Your task to perform on an android device: Open Wikipedia Image 0: 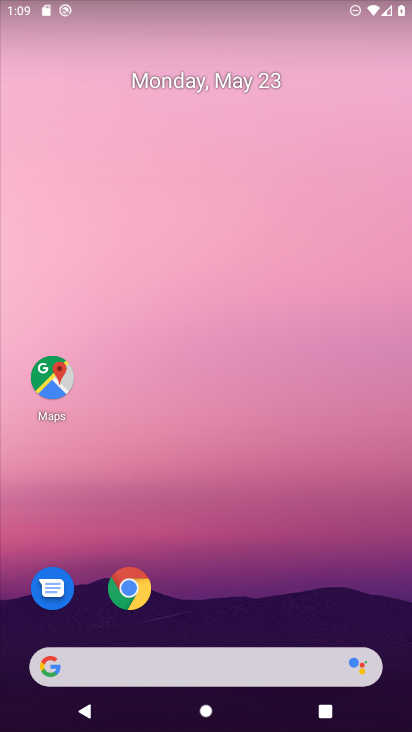
Step 0: click (132, 589)
Your task to perform on an android device: Open Wikipedia Image 1: 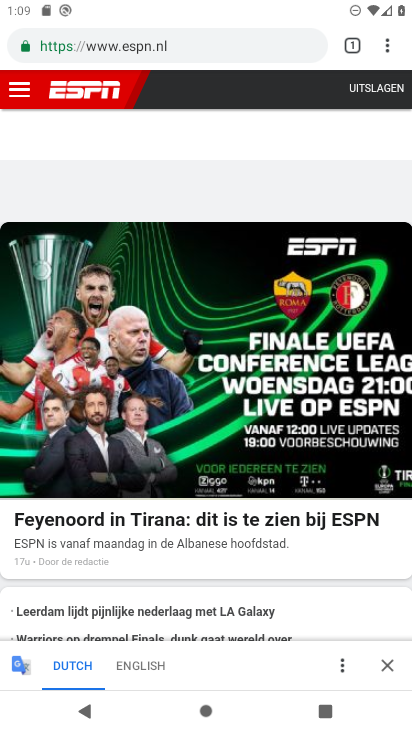
Step 1: click (359, 40)
Your task to perform on an android device: Open Wikipedia Image 2: 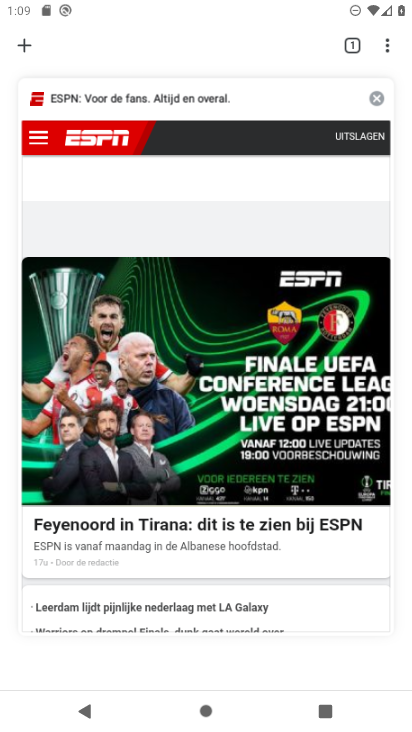
Step 2: click (378, 96)
Your task to perform on an android device: Open Wikipedia Image 3: 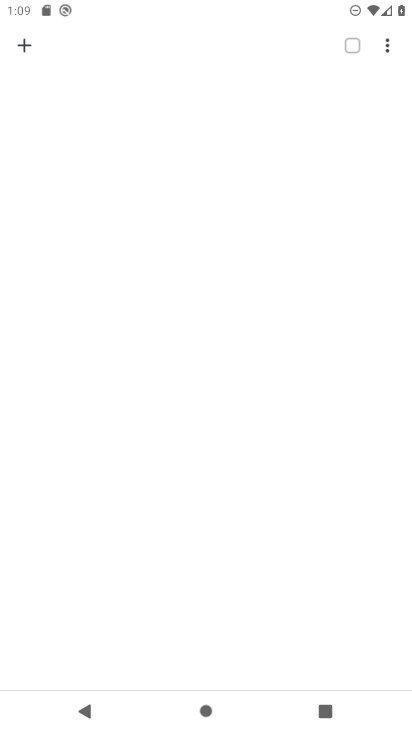
Step 3: click (22, 47)
Your task to perform on an android device: Open Wikipedia Image 4: 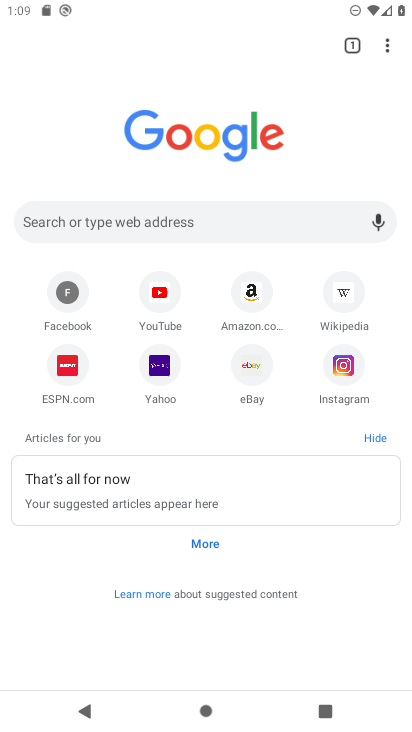
Step 4: click (347, 300)
Your task to perform on an android device: Open Wikipedia Image 5: 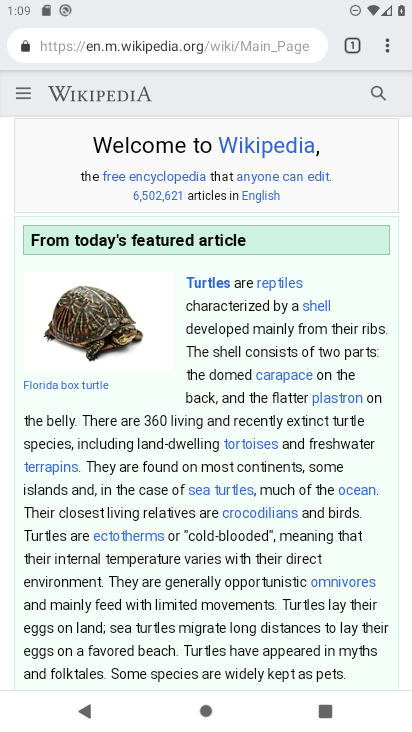
Step 5: task complete